Your task to perform on an android device: Search for the best rated headphones on Walmart Image 0: 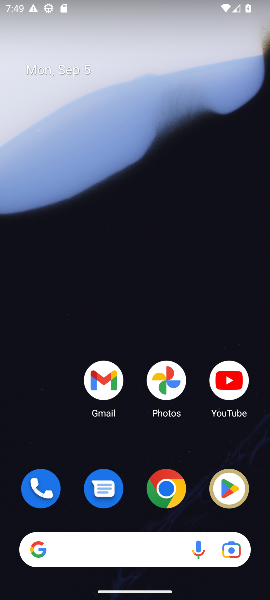
Step 0: click (167, 483)
Your task to perform on an android device: Search for the best rated headphones on Walmart Image 1: 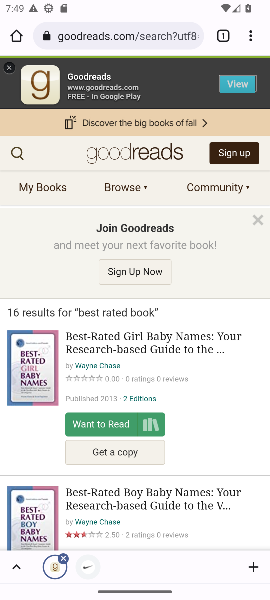
Step 1: click (187, 29)
Your task to perform on an android device: Search for the best rated headphones on Walmart Image 2: 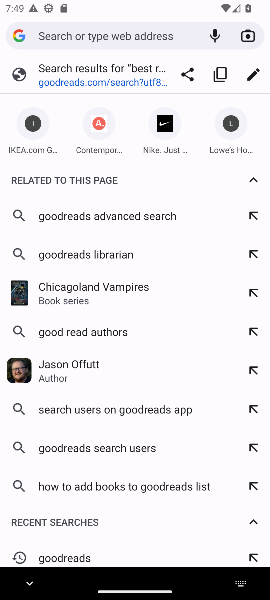
Step 2: type "walmart"
Your task to perform on an android device: Search for the best rated headphones on Walmart Image 3: 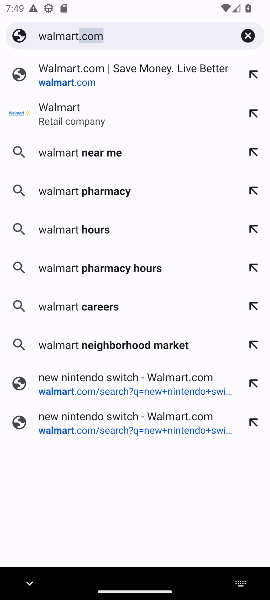
Step 3: press enter
Your task to perform on an android device: Search for the best rated headphones on Walmart Image 4: 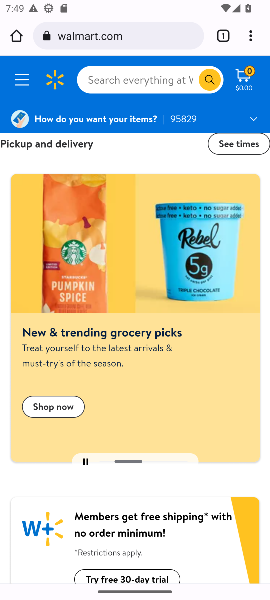
Step 4: click (139, 393)
Your task to perform on an android device: Search for the best rated headphones on Walmart Image 5: 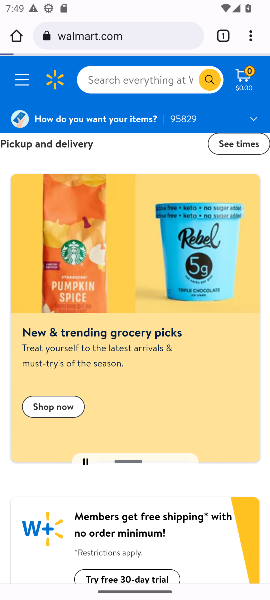
Step 5: drag from (165, 343) to (204, 211)
Your task to perform on an android device: Search for the best rated headphones on Walmart Image 6: 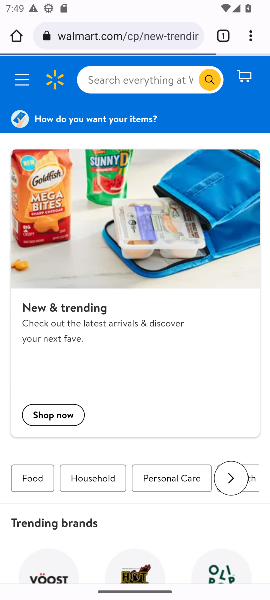
Step 6: click (140, 79)
Your task to perform on an android device: Search for the best rated headphones on Walmart Image 7: 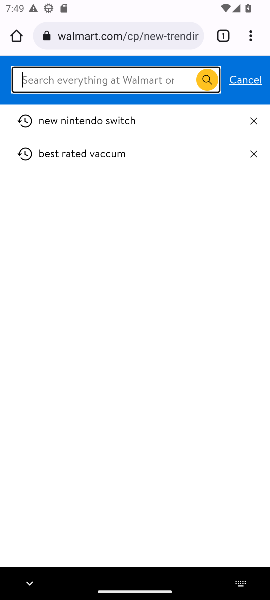
Step 7: type "headphones"
Your task to perform on an android device: Search for the best rated headphones on Walmart Image 8: 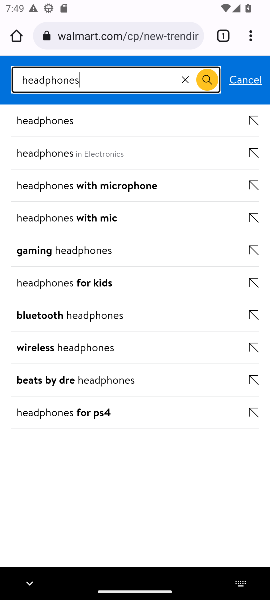
Step 8: press enter
Your task to perform on an android device: Search for the best rated headphones on Walmart Image 9: 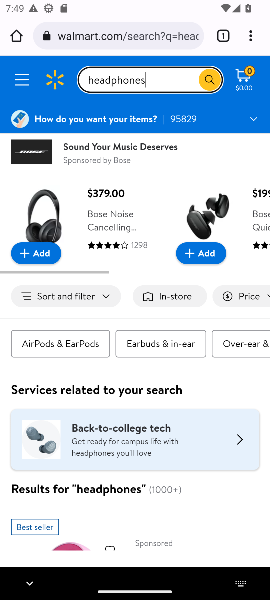
Step 9: click (81, 298)
Your task to perform on an android device: Search for the best rated headphones on Walmart Image 10: 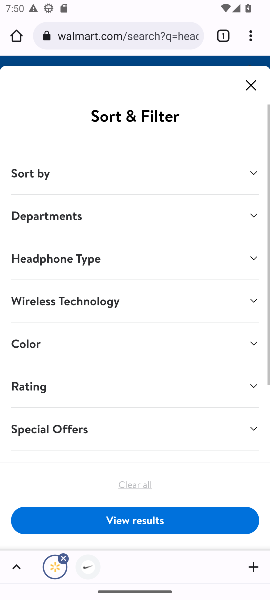
Step 10: drag from (92, 366) to (92, 242)
Your task to perform on an android device: Search for the best rated headphones on Walmart Image 11: 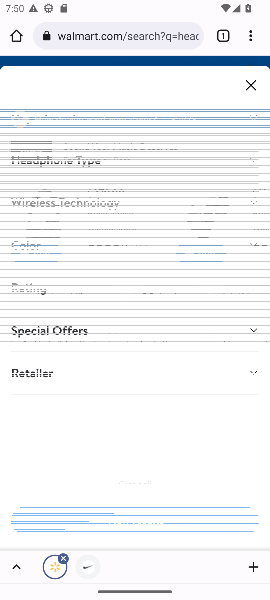
Step 11: click (120, 299)
Your task to perform on an android device: Search for the best rated headphones on Walmart Image 12: 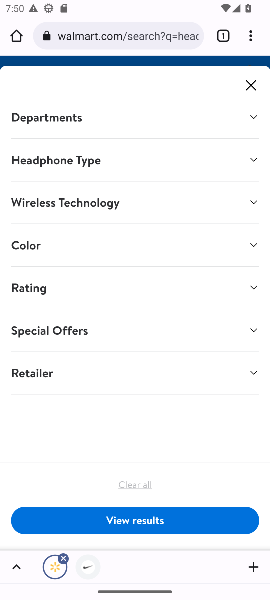
Step 12: click (117, 291)
Your task to perform on an android device: Search for the best rated headphones on Walmart Image 13: 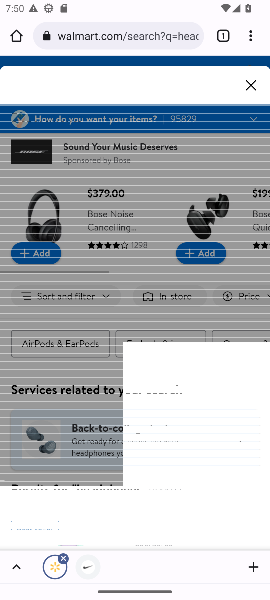
Step 13: click (95, 313)
Your task to perform on an android device: Search for the best rated headphones on Walmart Image 14: 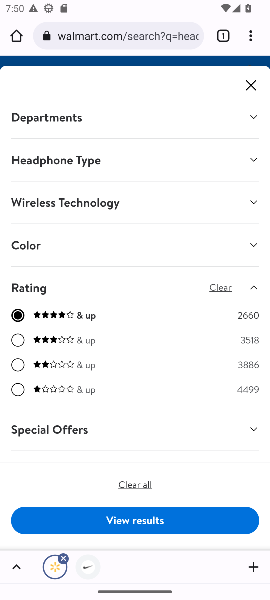
Step 14: click (143, 521)
Your task to perform on an android device: Search for the best rated headphones on Walmart Image 15: 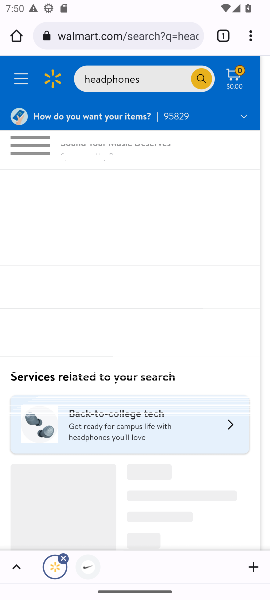
Step 15: task complete